Your task to perform on an android device: add a contact in the contacts app Image 0: 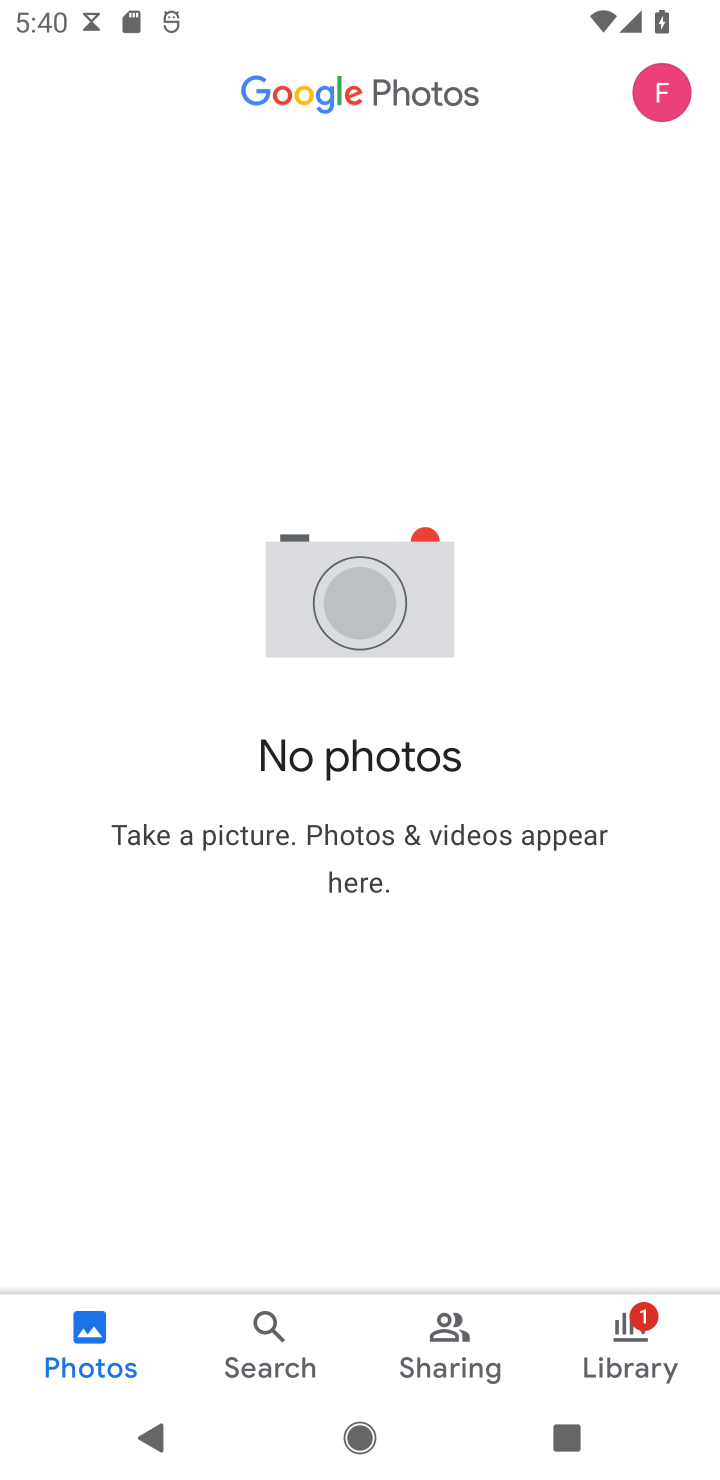
Step 0: press home button
Your task to perform on an android device: add a contact in the contacts app Image 1: 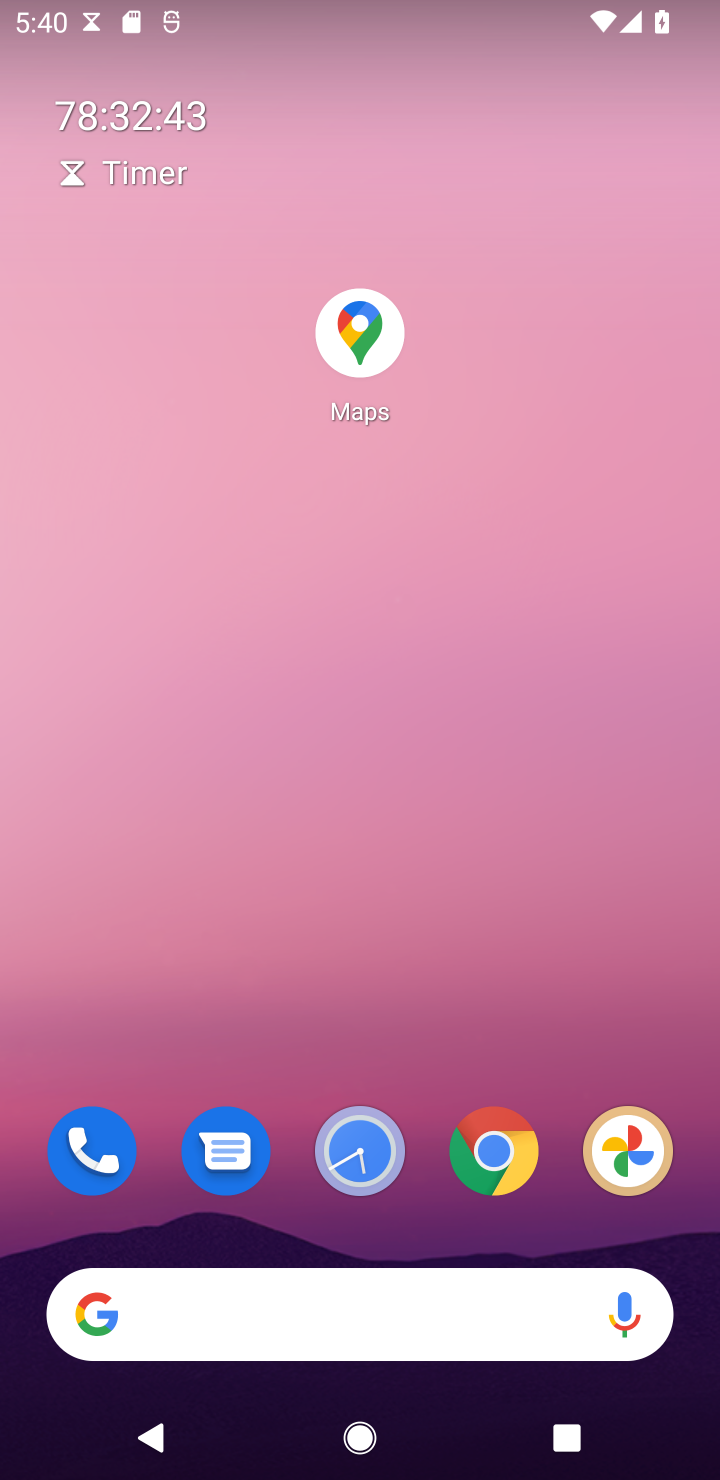
Step 1: drag from (481, 996) to (395, 286)
Your task to perform on an android device: add a contact in the contacts app Image 2: 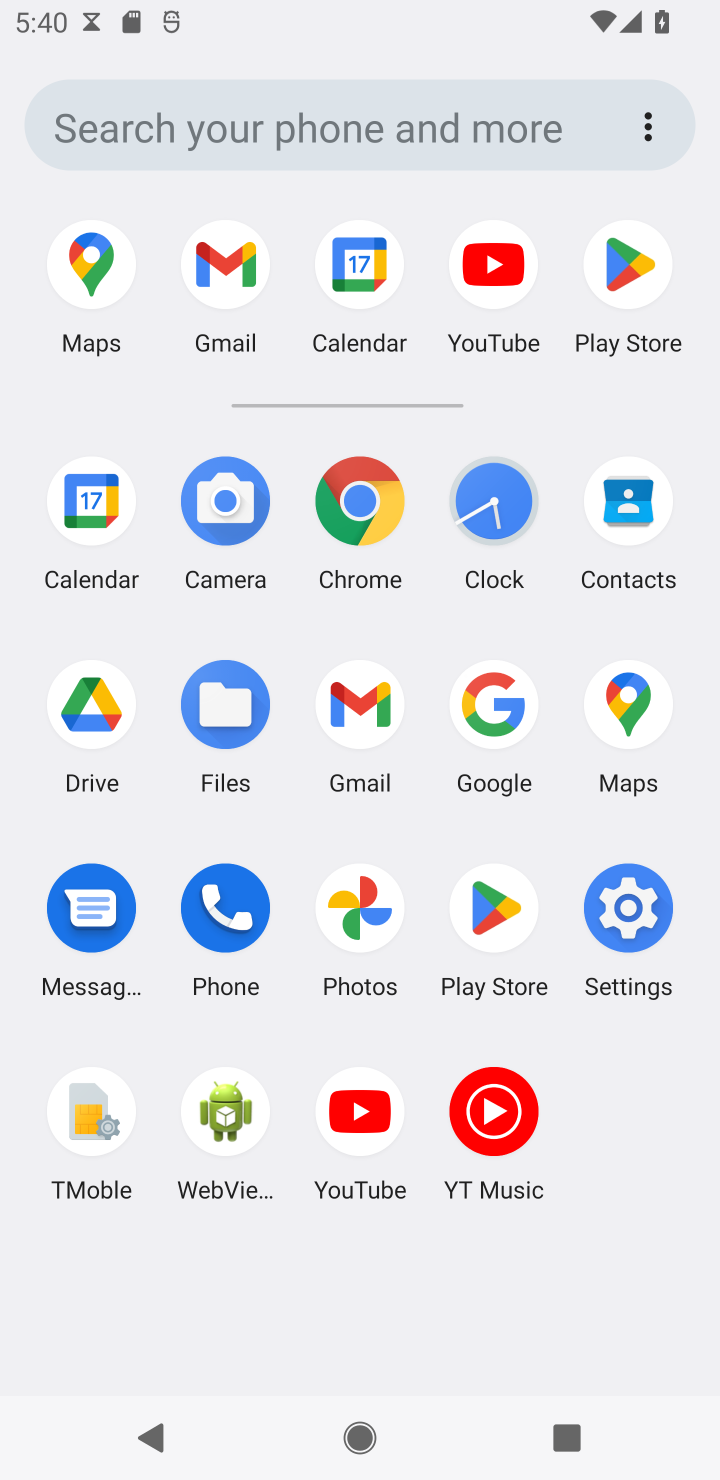
Step 2: click (625, 476)
Your task to perform on an android device: add a contact in the contacts app Image 3: 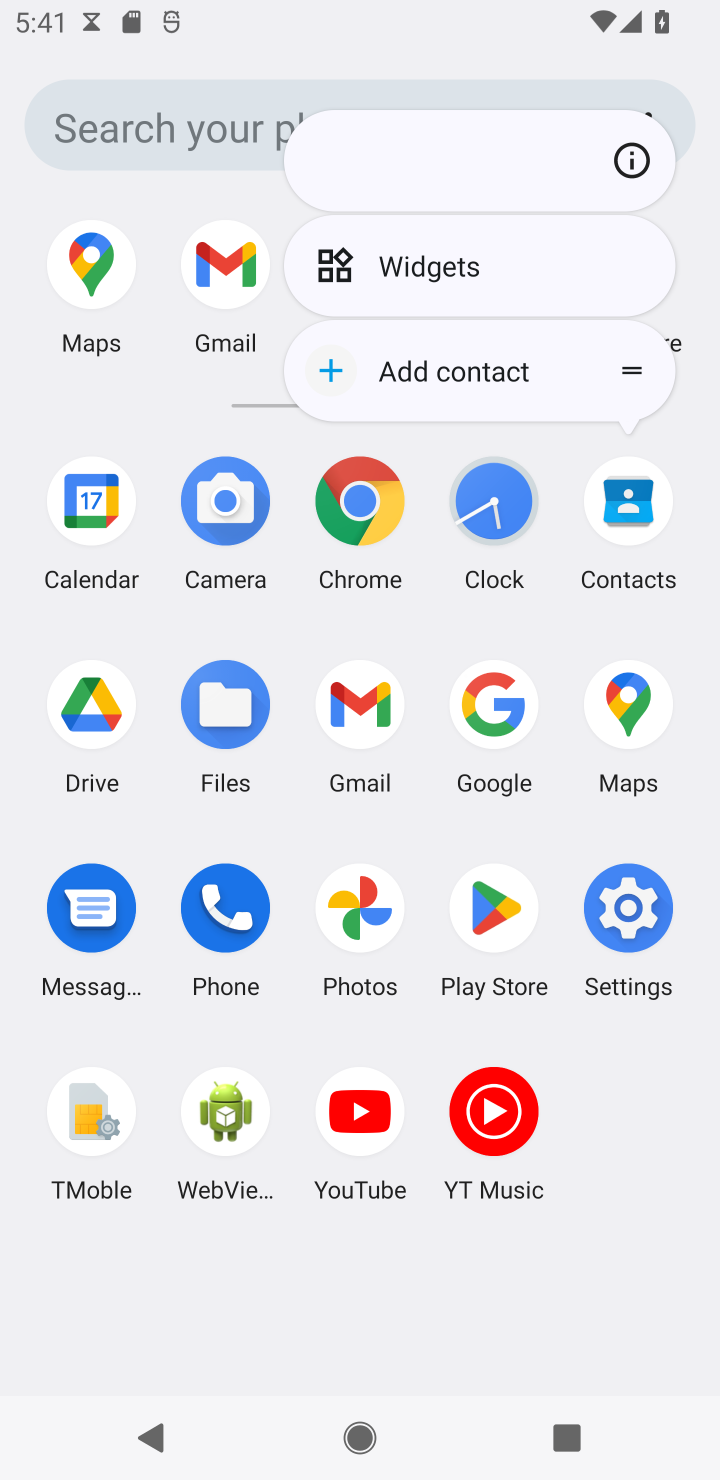
Step 3: click (612, 484)
Your task to perform on an android device: add a contact in the contacts app Image 4: 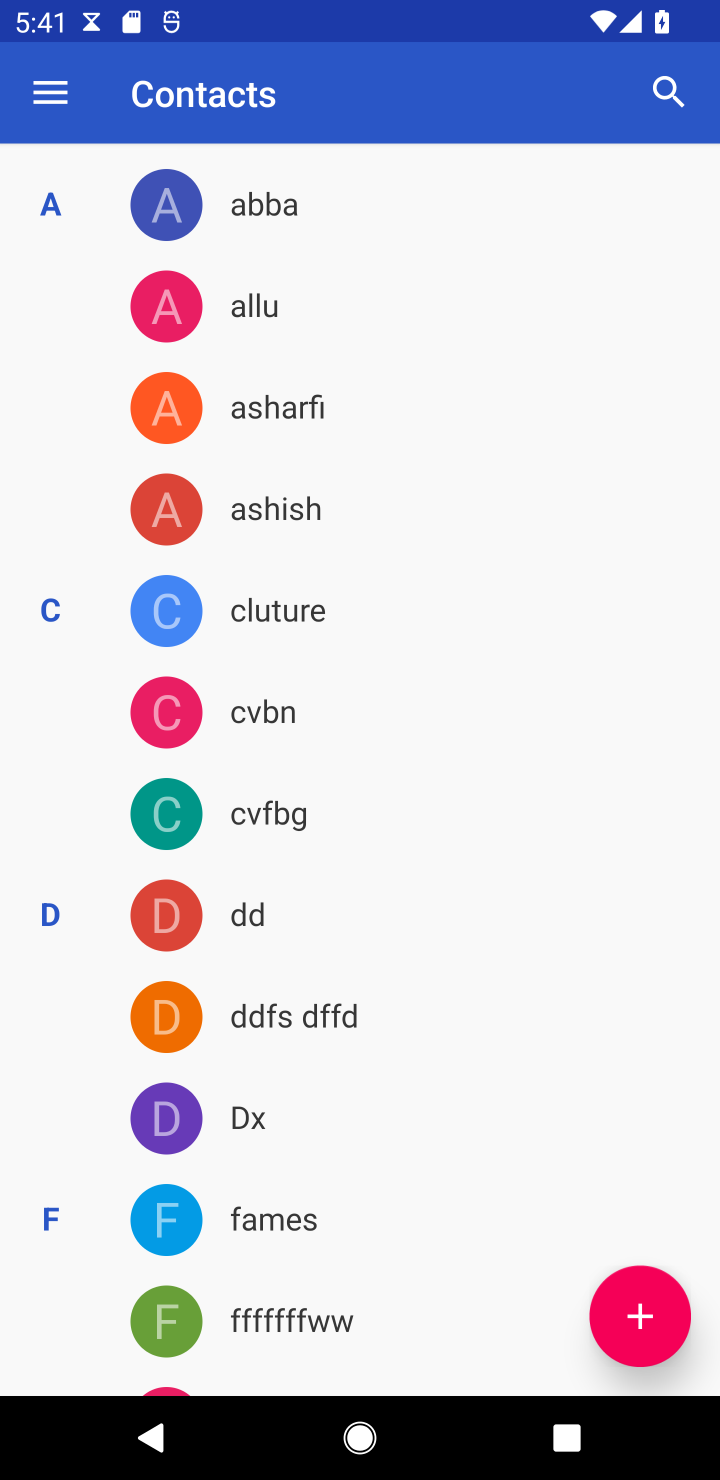
Step 4: click (616, 1297)
Your task to perform on an android device: add a contact in the contacts app Image 5: 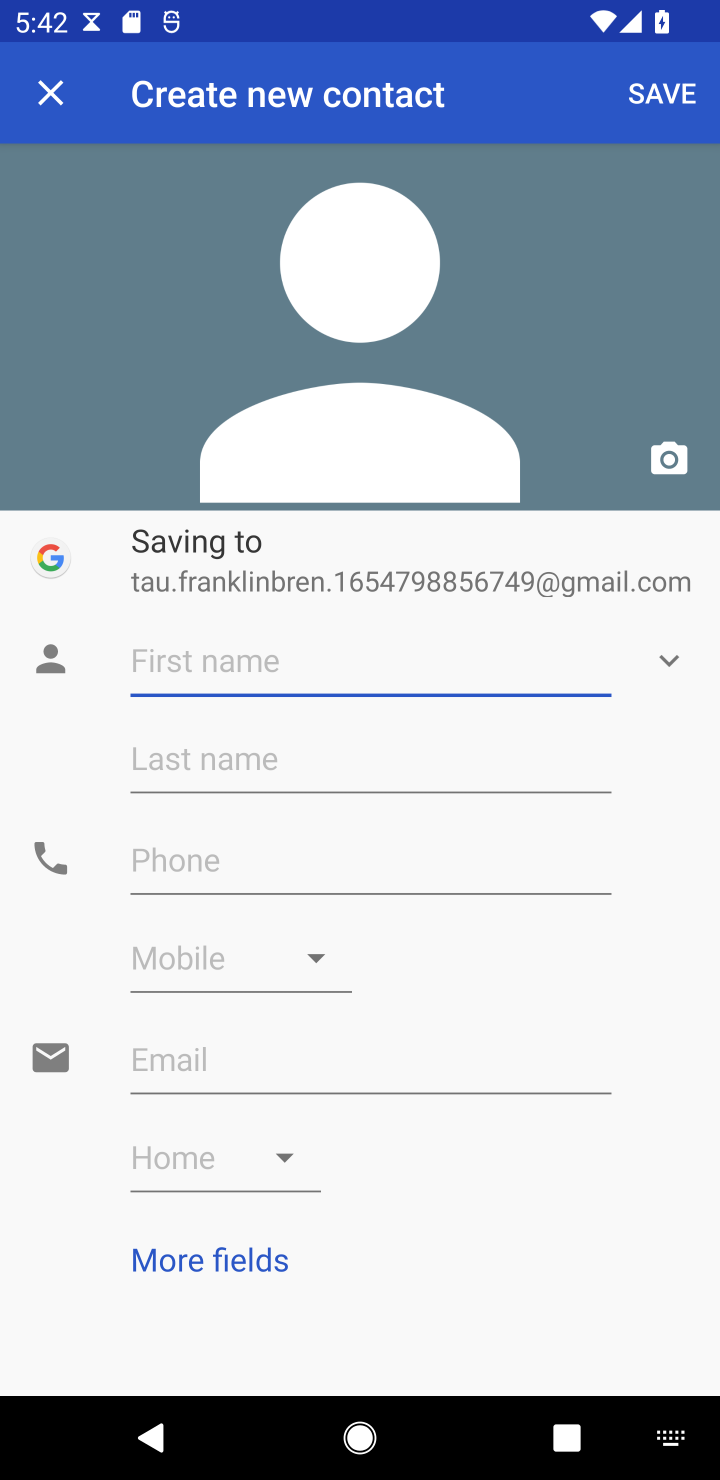
Step 5: click (347, 640)
Your task to perform on an android device: add a contact in the contacts app Image 6: 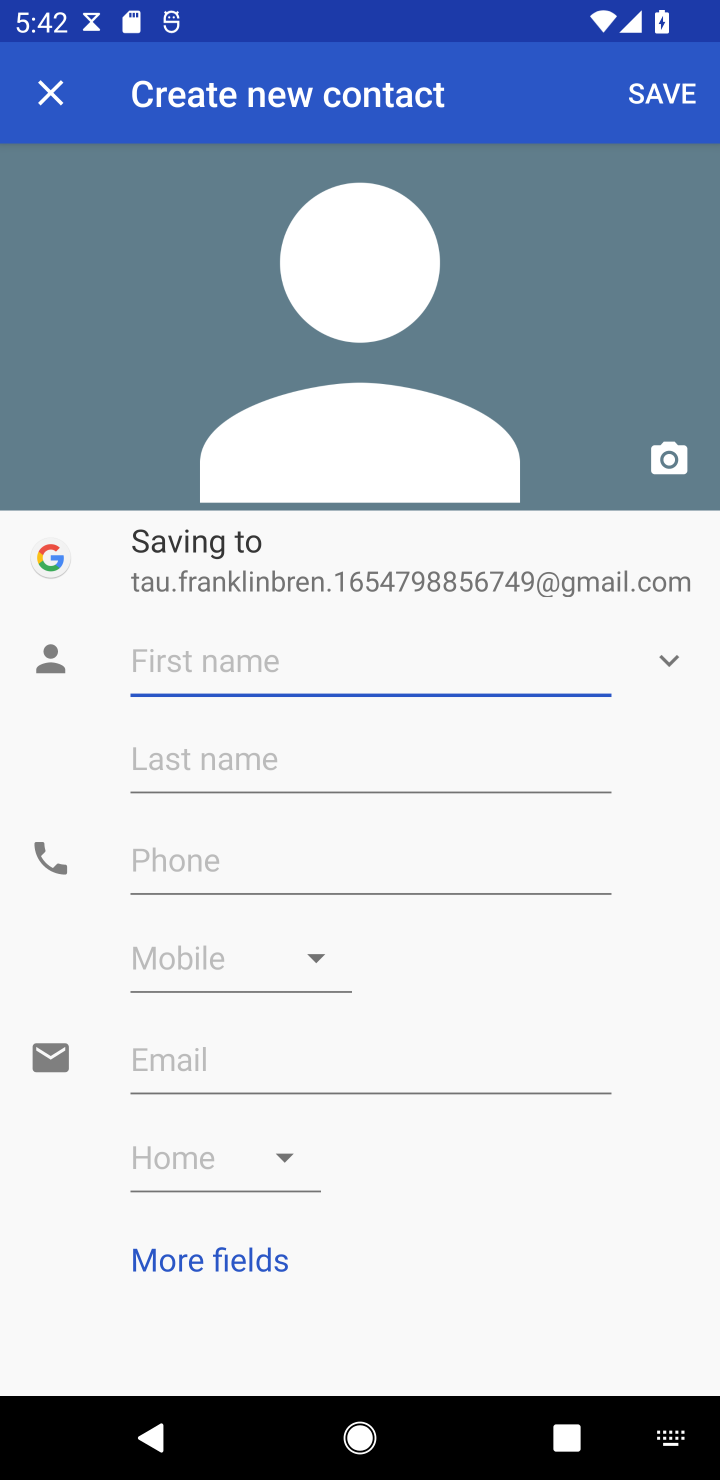
Step 6: type "9299299292929292 "
Your task to perform on an android device: add a contact in the contacts app Image 7: 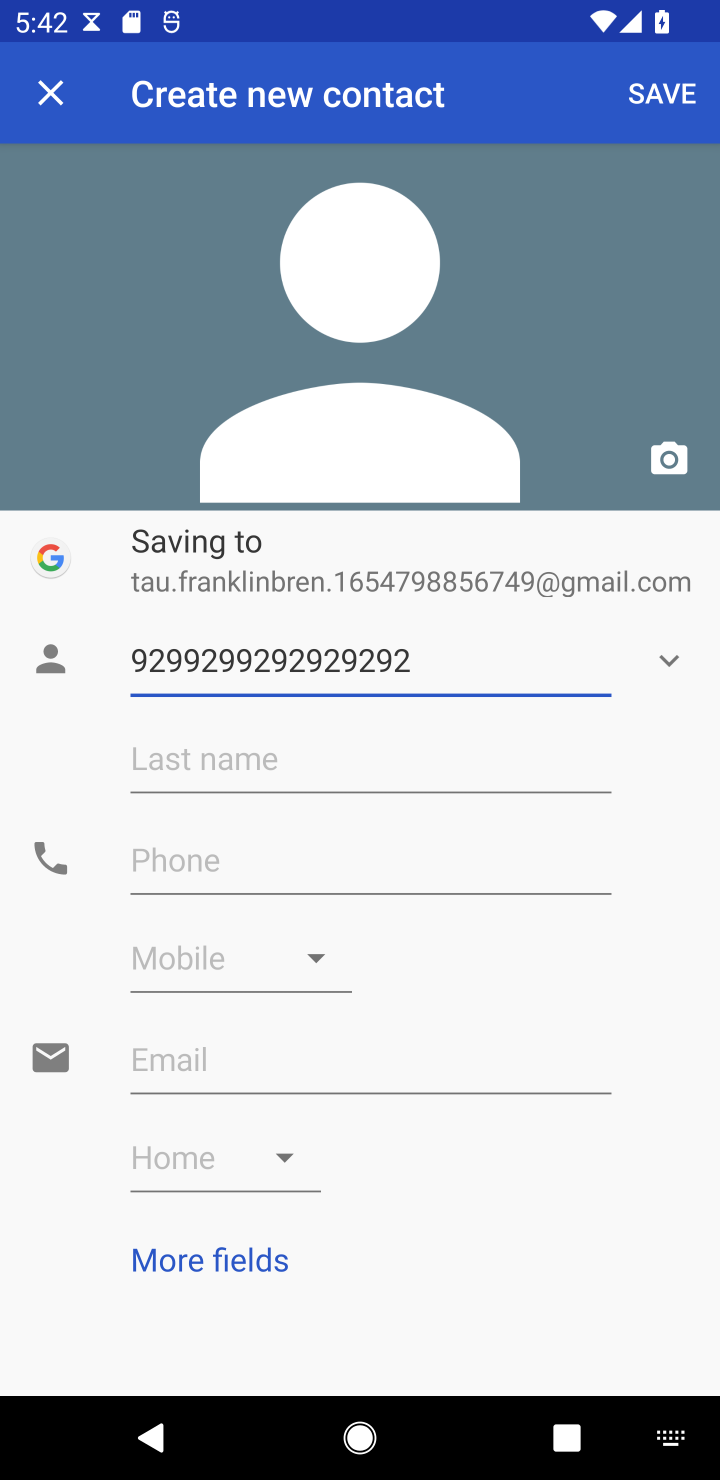
Step 7: click (264, 831)
Your task to perform on an android device: add a contact in the contacts app Image 8: 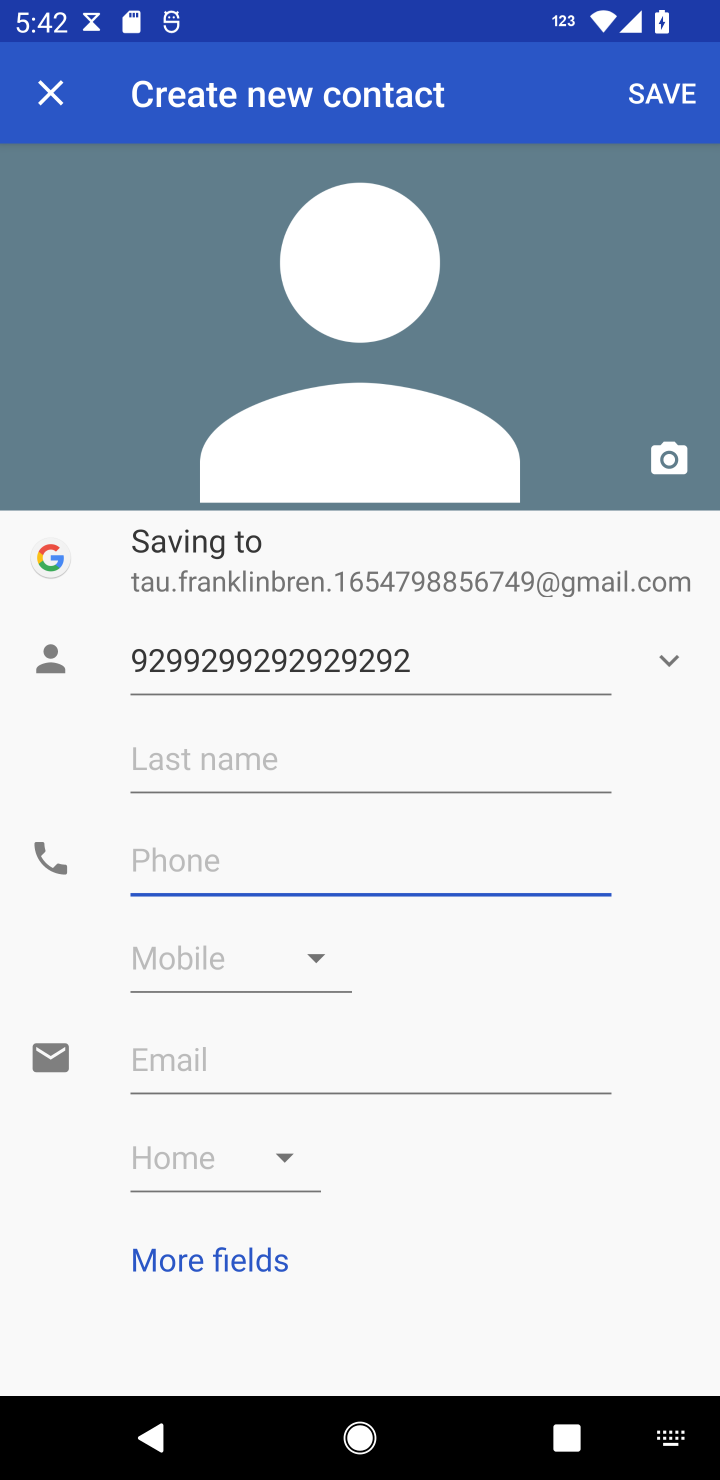
Step 8: click (470, 673)
Your task to perform on an android device: add a contact in the contacts app Image 9: 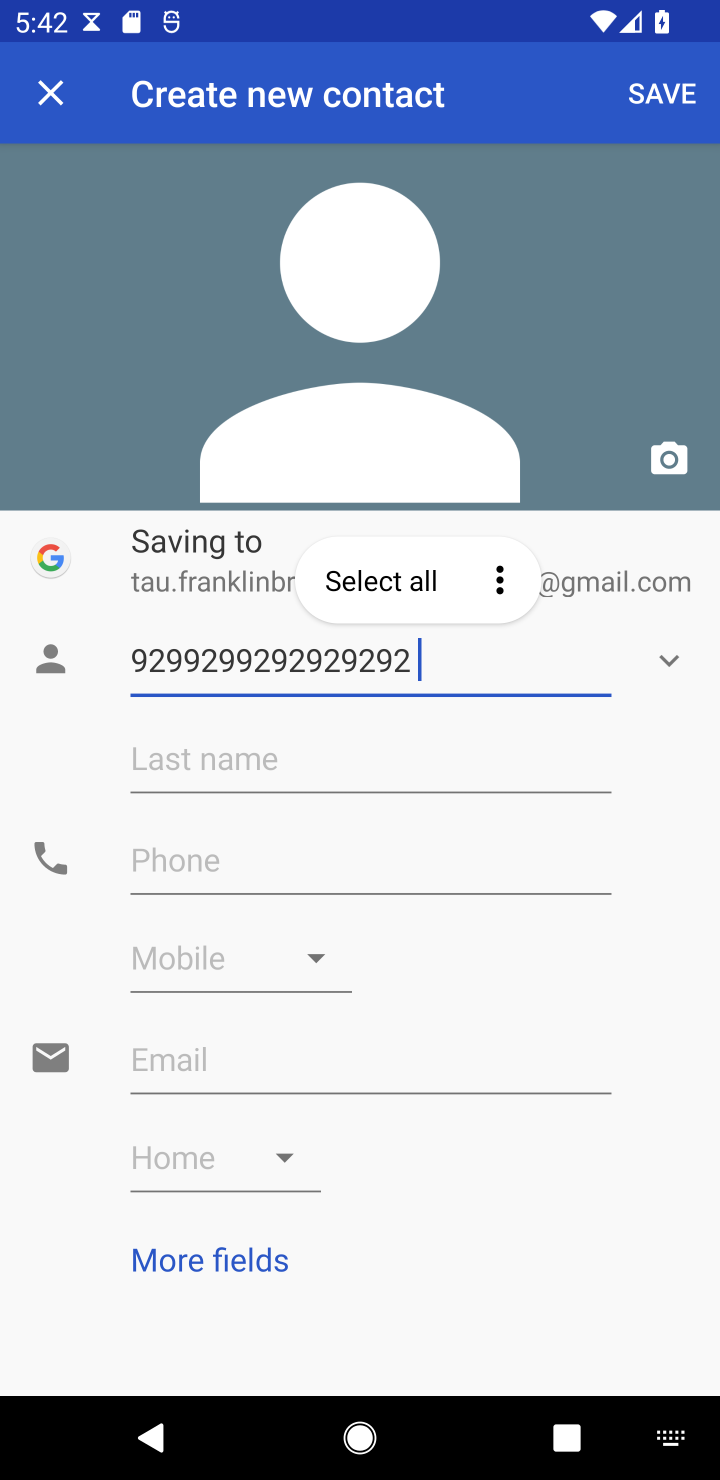
Step 9: drag from (146, 647) to (439, 676)
Your task to perform on an android device: add a contact in the contacts app Image 10: 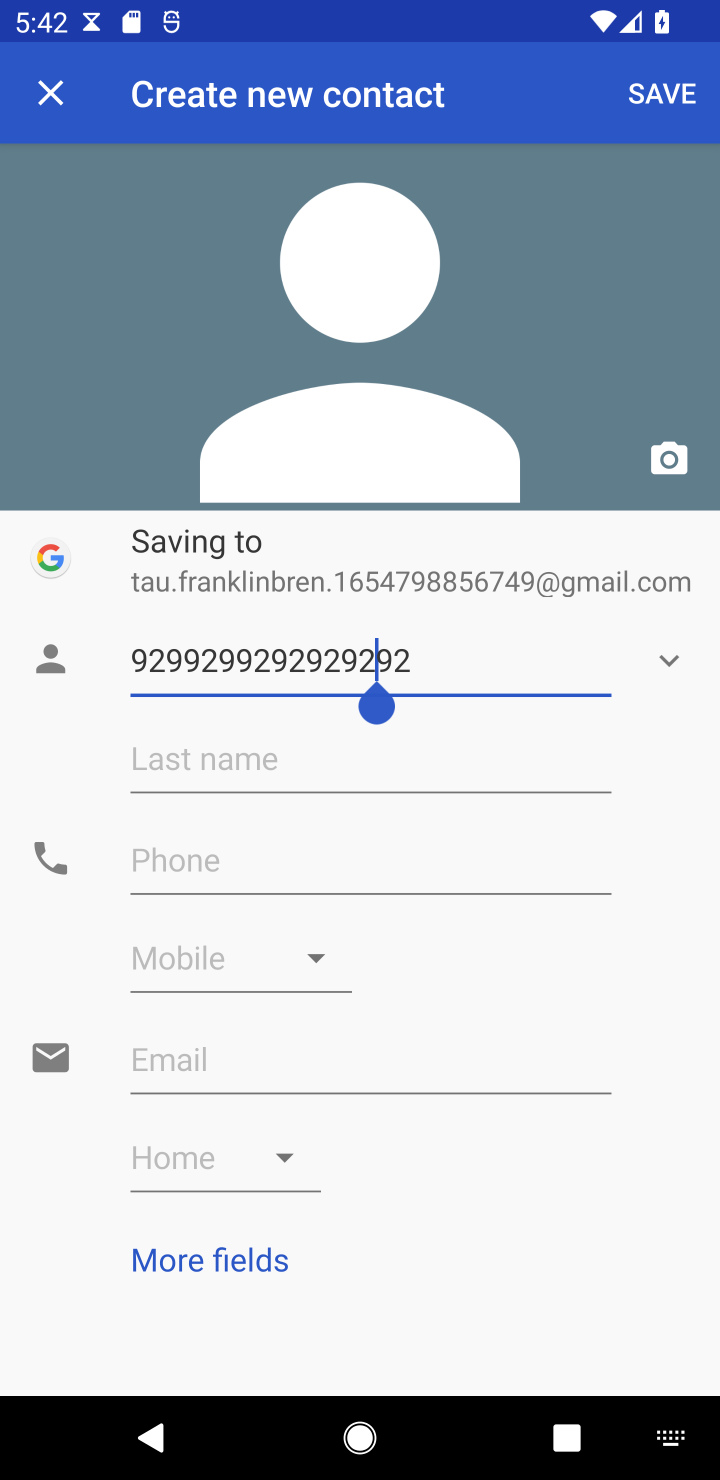
Step 10: click (338, 663)
Your task to perform on an android device: add a contact in the contacts app Image 11: 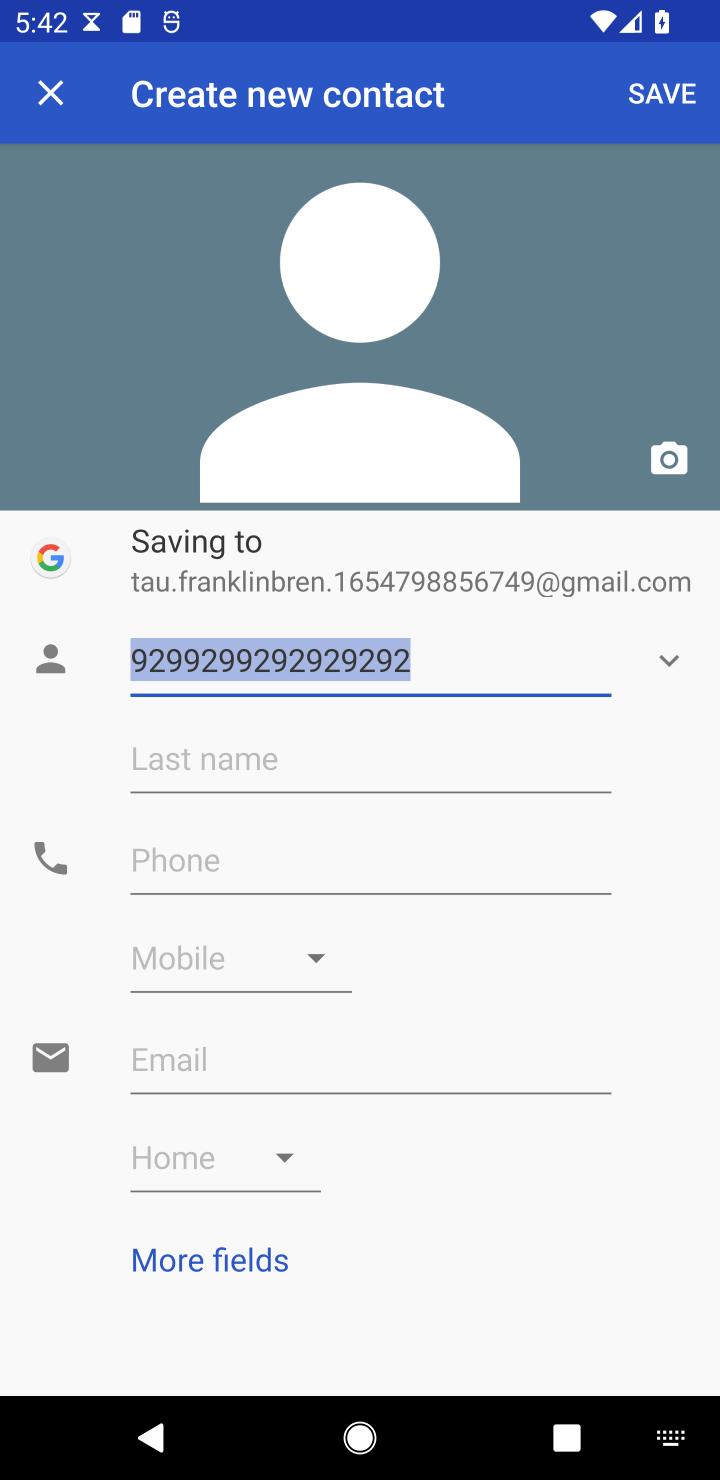
Step 11: click (338, 663)
Your task to perform on an android device: add a contact in the contacts app Image 12: 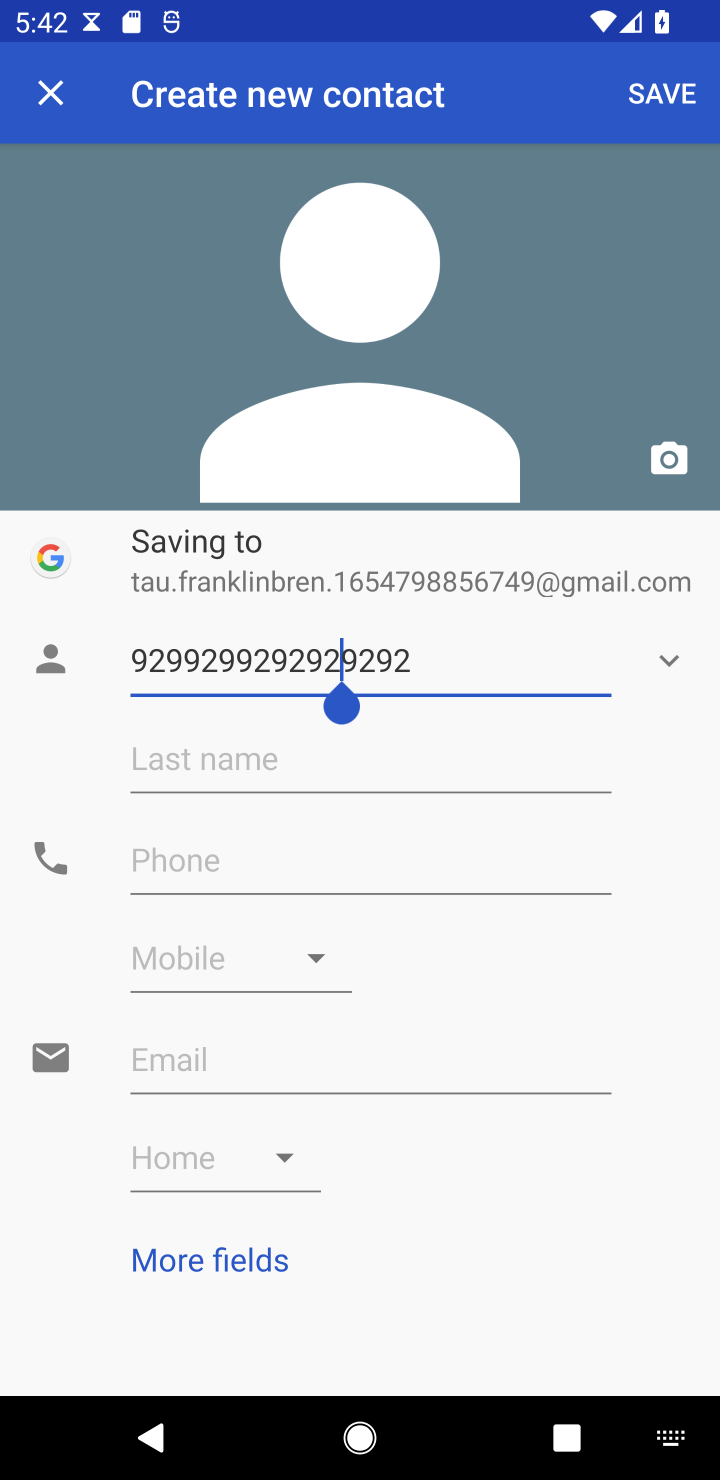
Step 12: click (338, 663)
Your task to perform on an android device: add a contact in the contacts app Image 13: 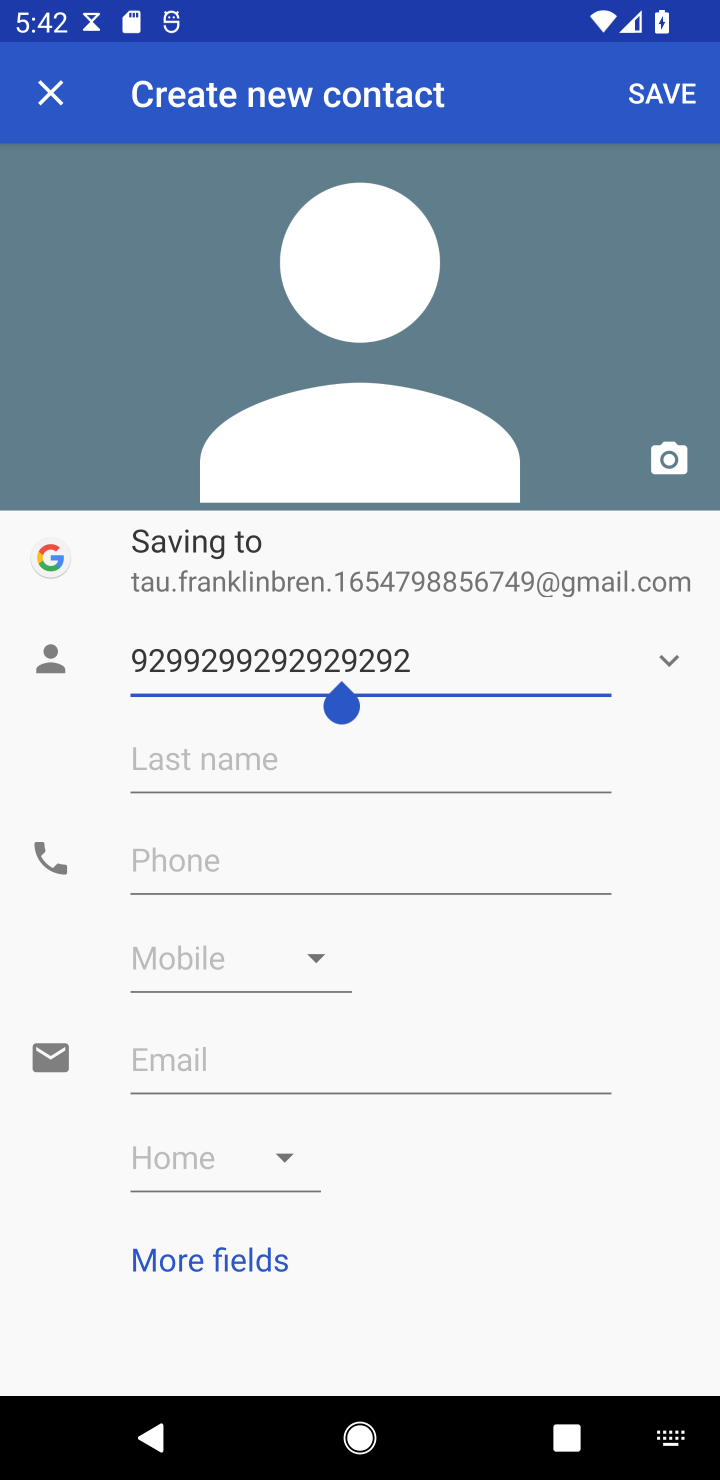
Step 13: click (338, 663)
Your task to perform on an android device: add a contact in the contacts app Image 14: 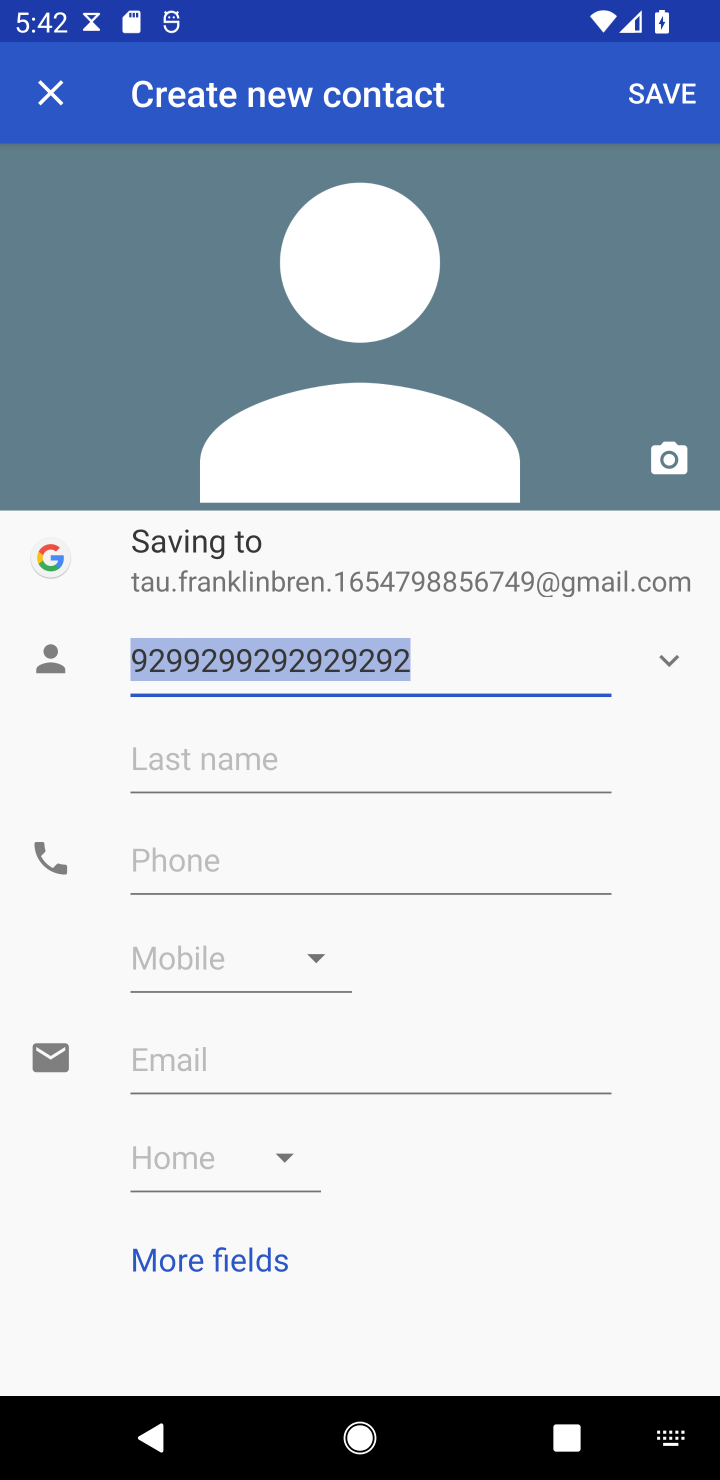
Step 14: click (338, 663)
Your task to perform on an android device: add a contact in the contacts app Image 15: 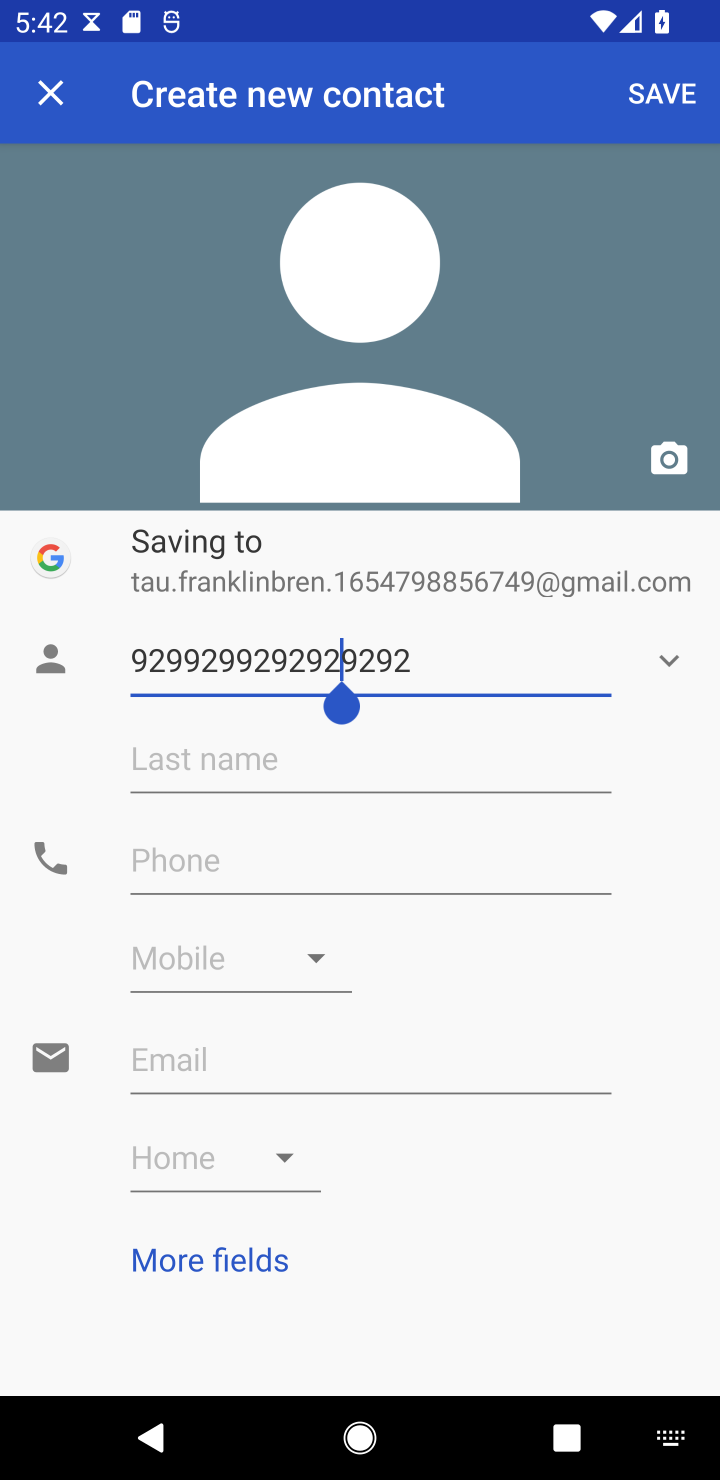
Step 15: click (299, 660)
Your task to perform on an android device: add a contact in the contacts app Image 16: 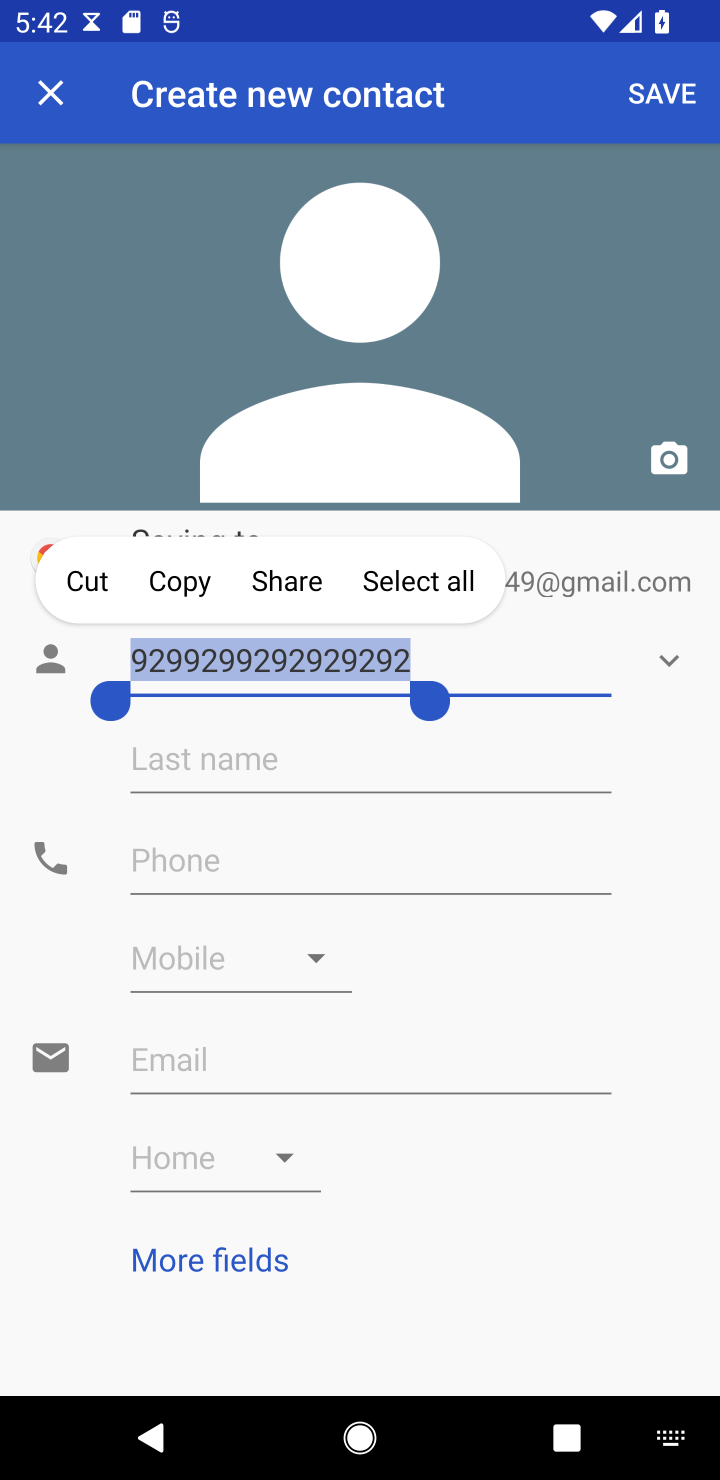
Step 16: click (93, 582)
Your task to perform on an android device: add a contact in the contacts app Image 17: 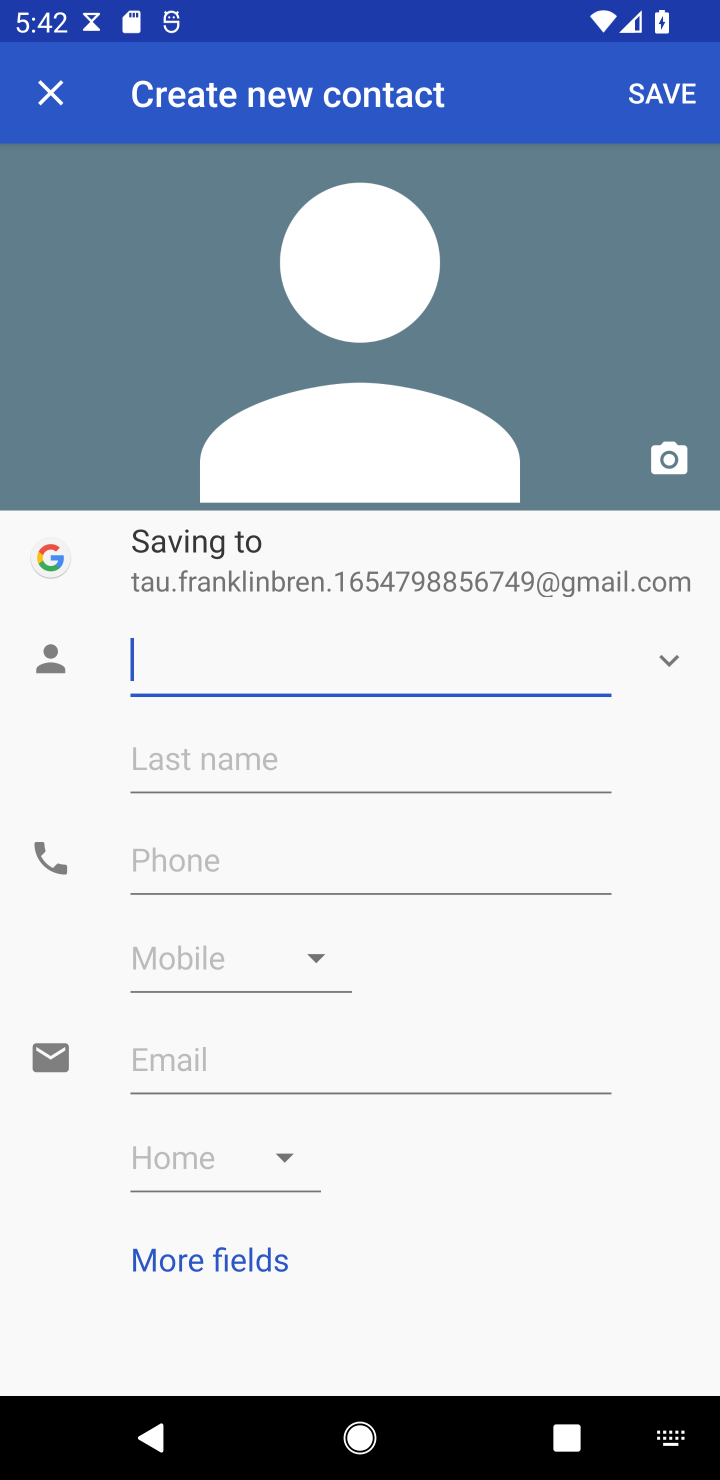
Step 17: click (326, 640)
Your task to perform on an android device: add a contact in the contacts app Image 18: 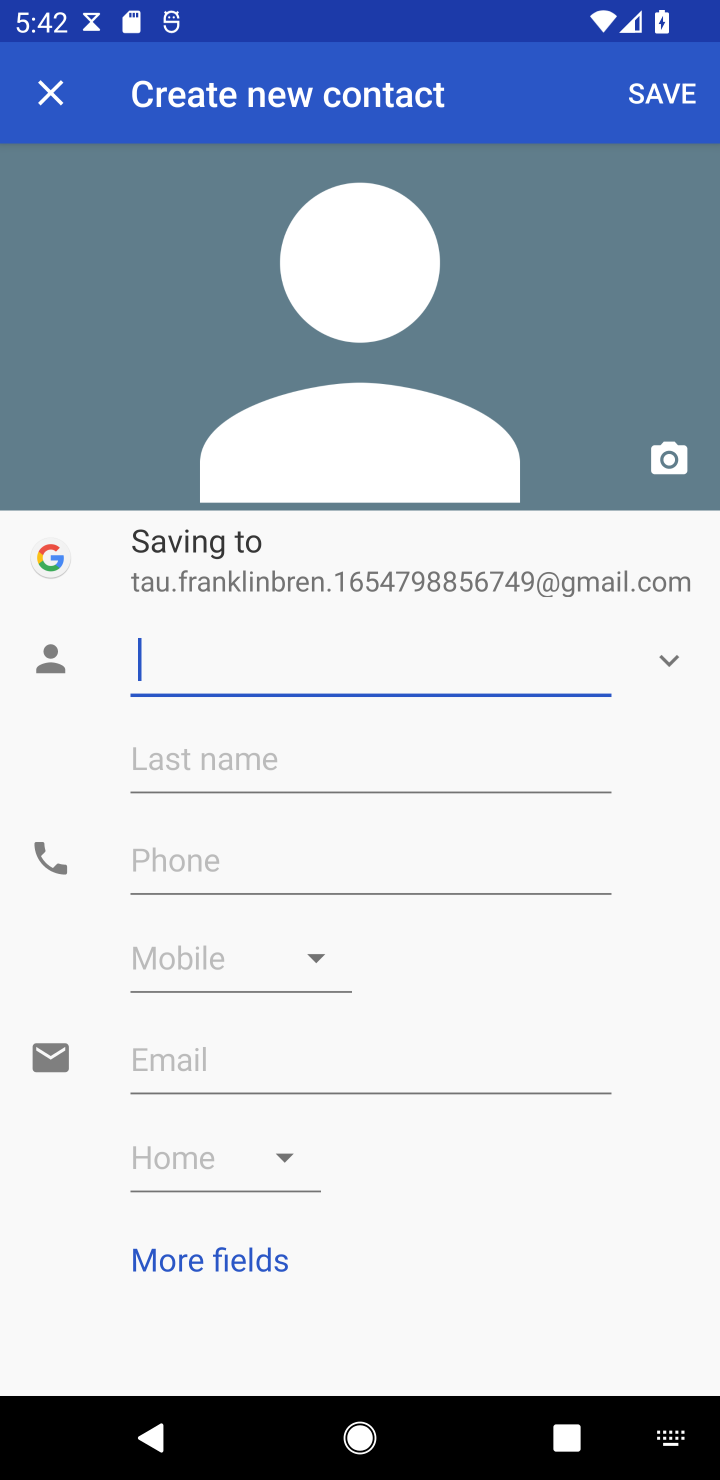
Step 18: type "delhi "
Your task to perform on an android device: add a contact in the contacts app Image 19: 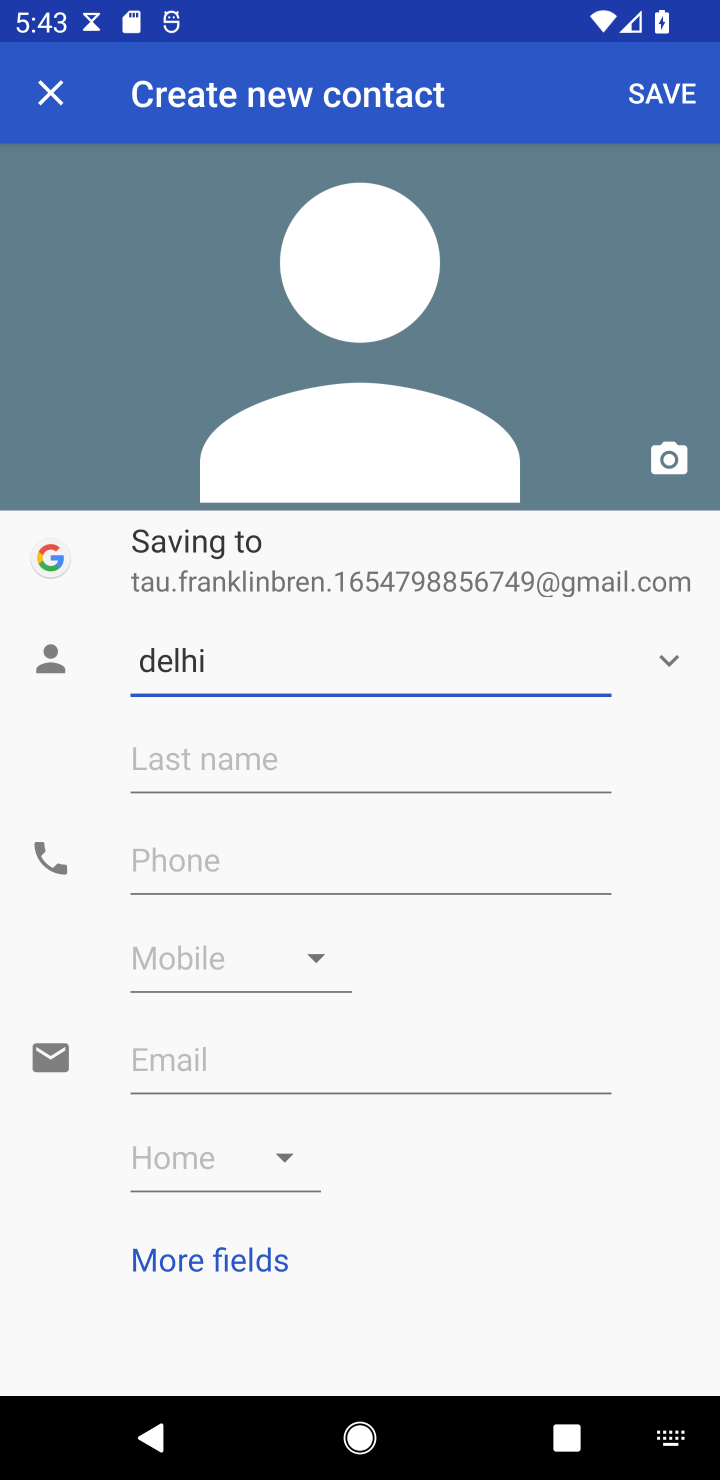
Step 19: click (309, 835)
Your task to perform on an android device: add a contact in the contacts app Image 20: 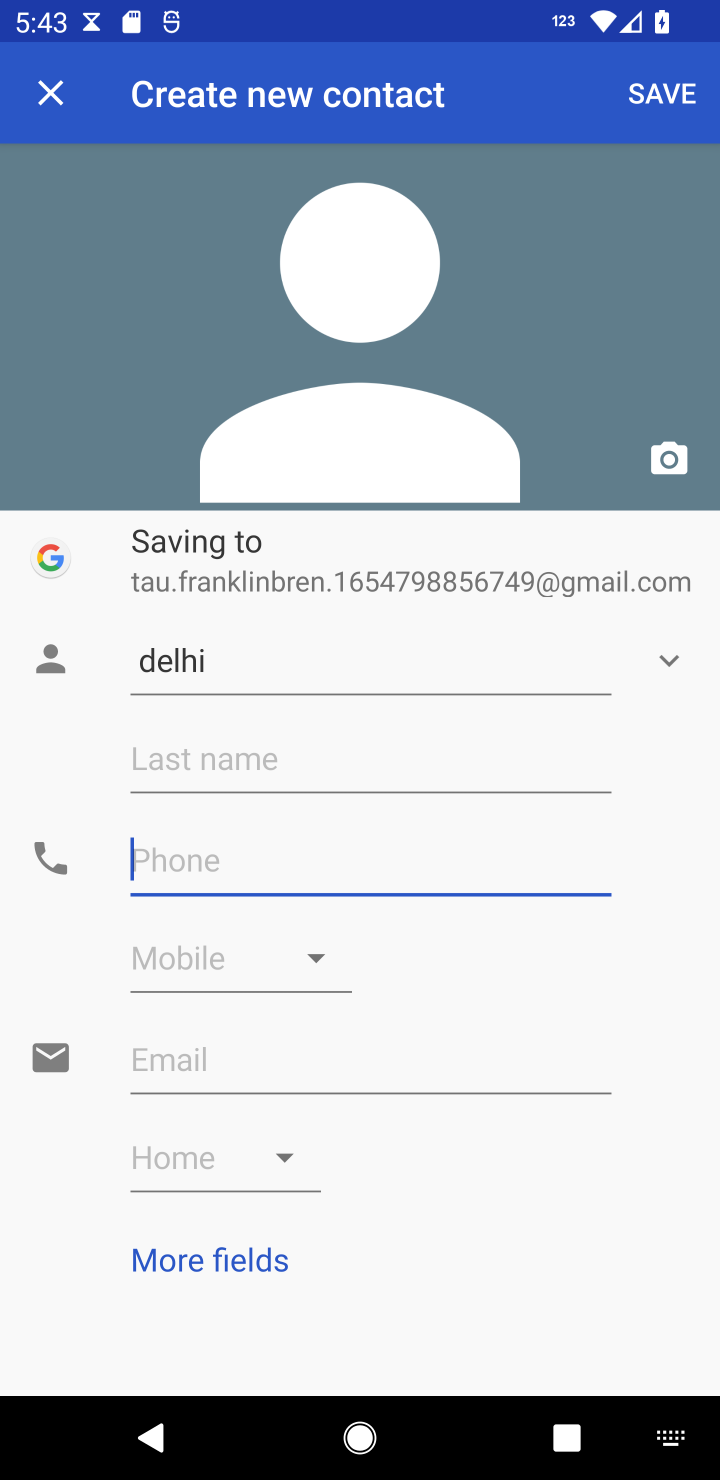
Step 20: type "0192837465 "
Your task to perform on an android device: add a contact in the contacts app Image 21: 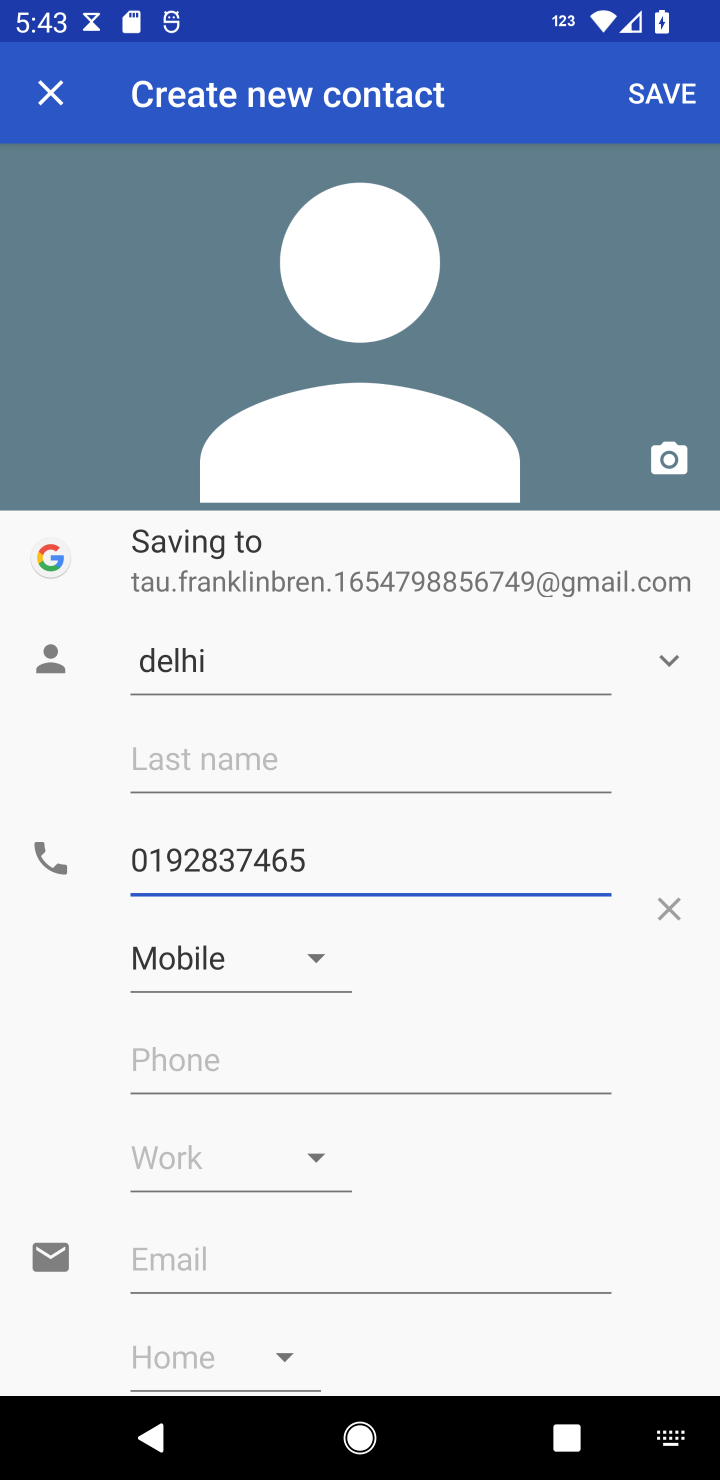
Step 21: click (648, 82)
Your task to perform on an android device: add a contact in the contacts app Image 22: 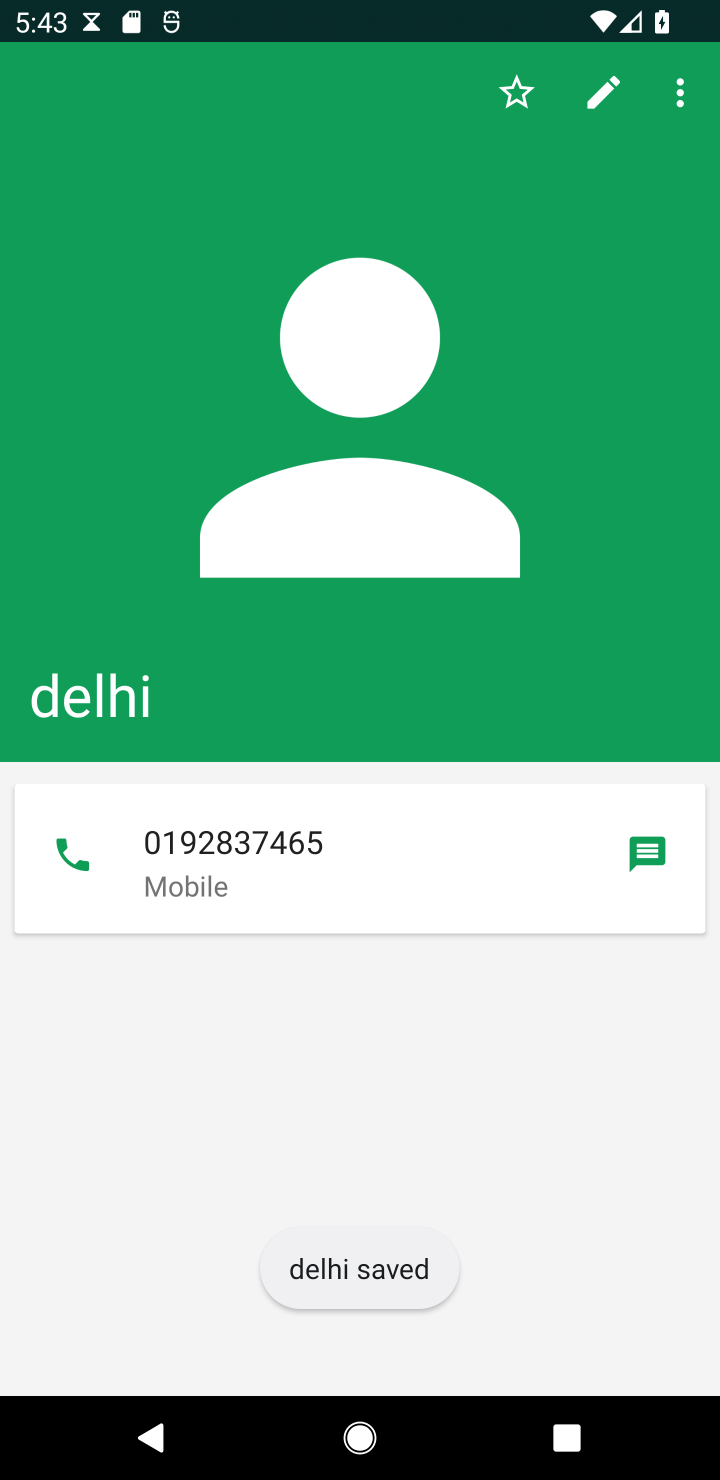
Step 22: task complete